Your task to perform on an android device: turn on showing notifications on the lock screen Image 0: 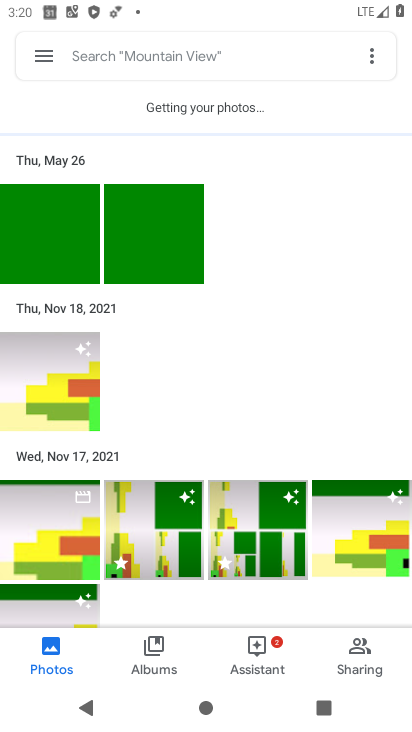
Step 0: press back button
Your task to perform on an android device: turn on showing notifications on the lock screen Image 1: 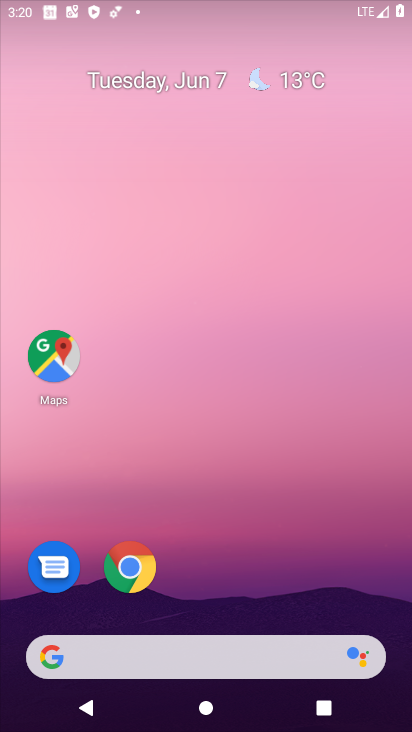
Step 1: drag from (112, 627) to (251, 38)
Your task to perform on an android device: turn on showing notifications on the lock screen Image 2: 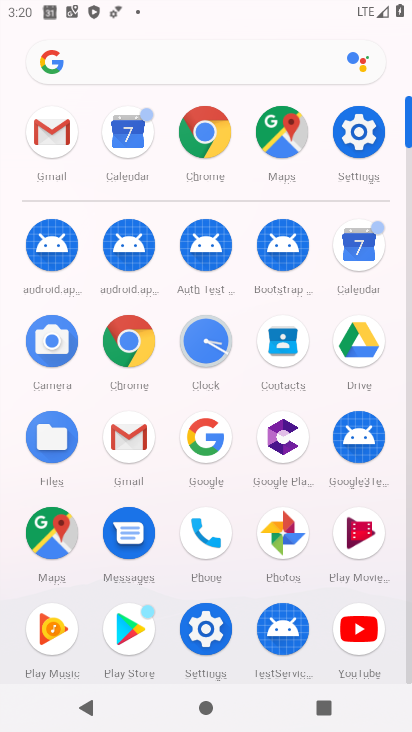
Step 2: click (357, 131)
Your task to perform on an android device: turn on showing notifications on the lock screen Image 3: 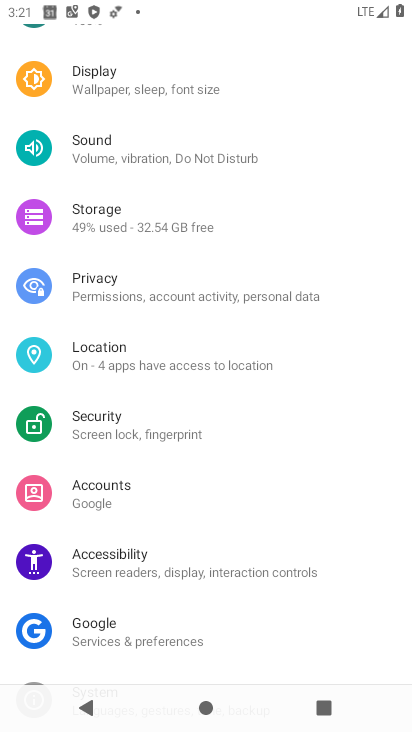
Step 3: drag from (237, 156) to (157, 695)
Your task to perform on an android device: turn on showing notifications on the lock screen Image 4: 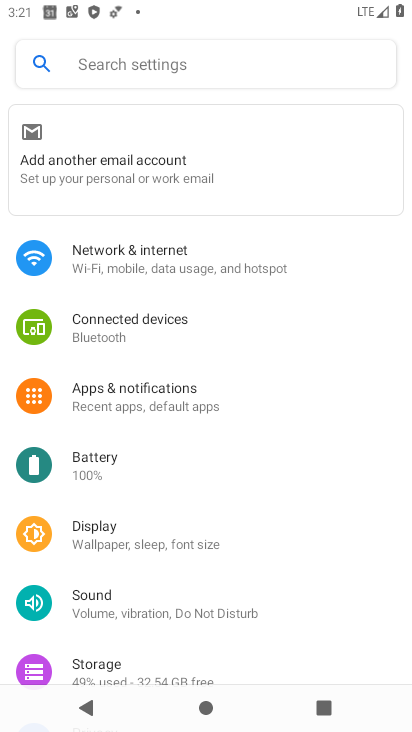
Step 4: click (141, 382)
Your task to perform on an android device: turn on showing notifications on the lock screen Image 5: 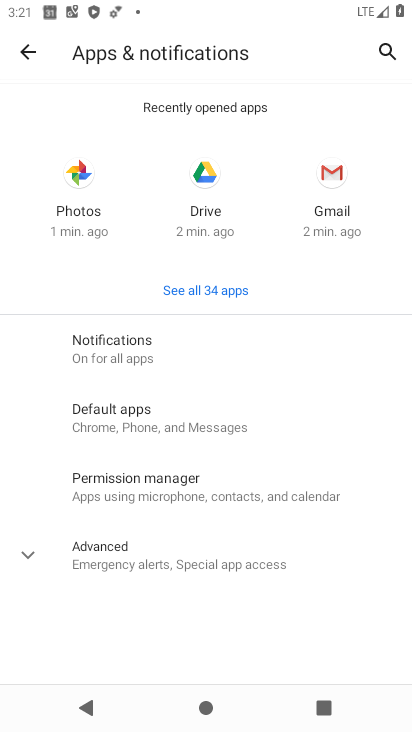
Step 5: click (125, 354)
Your task to perform on an android device: turn on showing notifications on the lock screen Image 6: 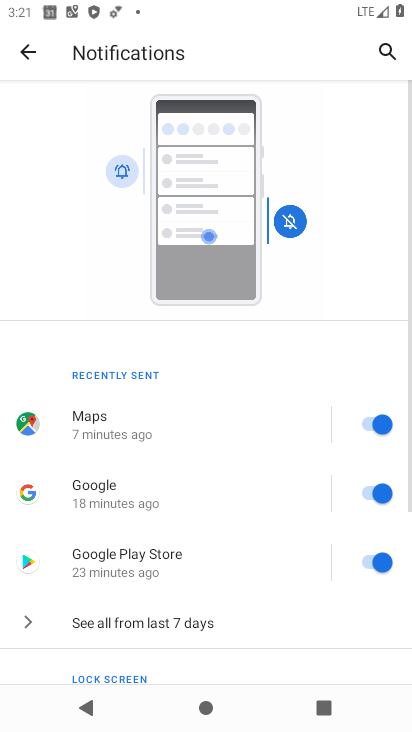
Step 6: drag from (152, 634) to (192, 211)
Your task to perform on an android device: turn on showing notifications on the lock screen Image 7: 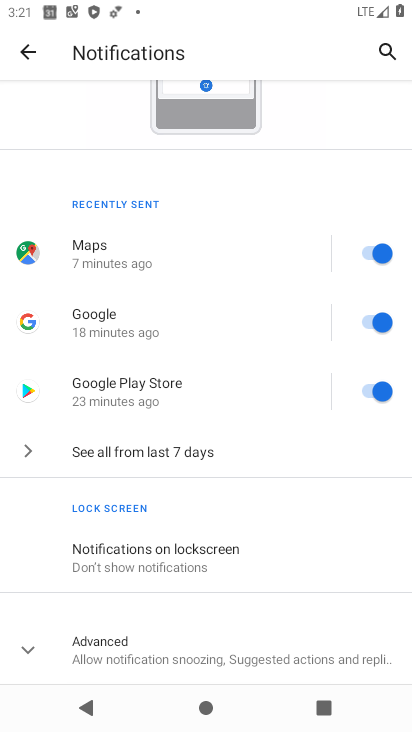
Step 7: click (126, 553)
Your task to perform on an android device: turn on showing notifications on the lock screen Image 8: 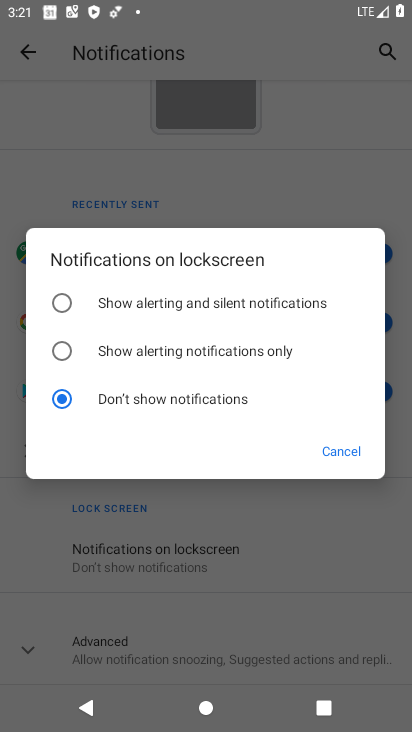
Step 8: click (78, 305)
Your task to perform on an android device: turn on showing notifications on the lock screen Image 9: 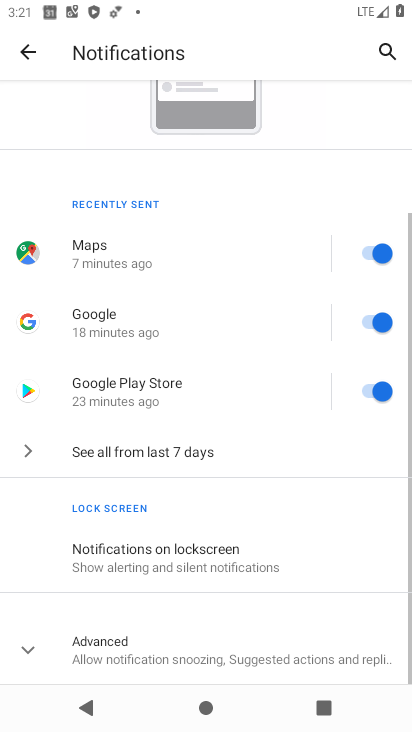
Step 9: task complete